Your task to perform on an android device: Go to eBay Image 0: 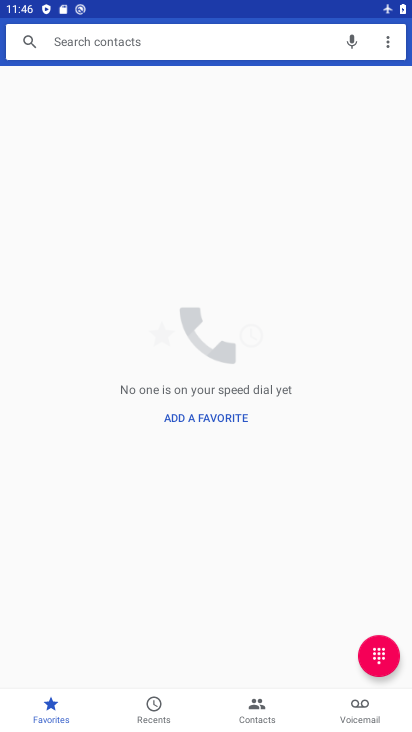
Step 0: press home button
Your task to perform on an android device: Go to eBay Image 1: 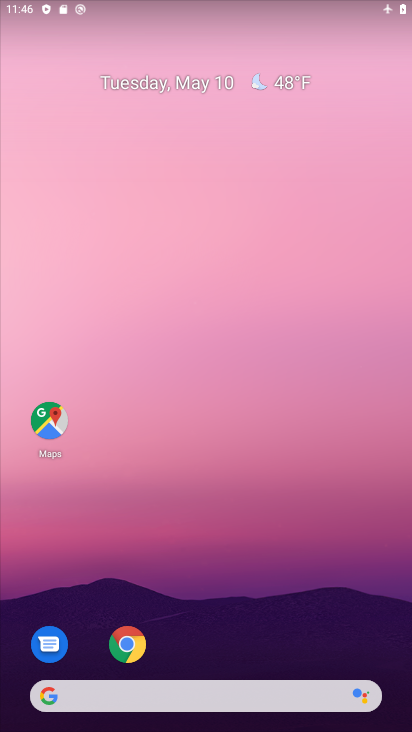
Step 1: click (128, 645)
Your task to perform on an android device: Go to eBay Image 2: 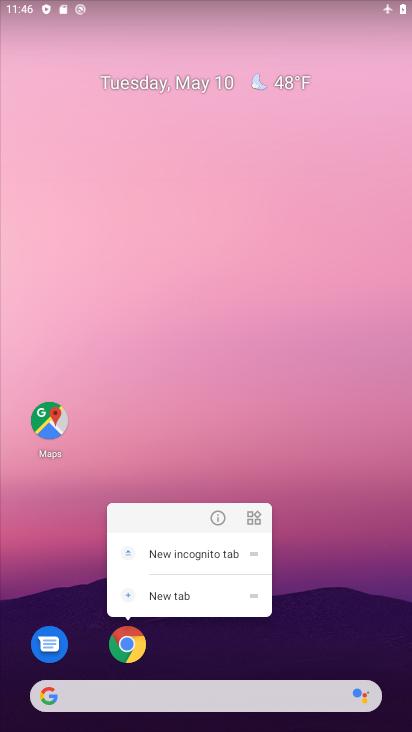
Step 2: click (136, 643)
Your task to perform on an android device: Go to eBay Image 3: 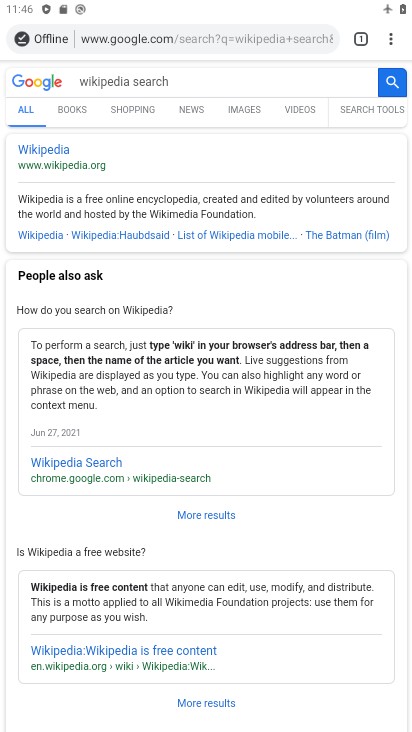
Step 3: click (225, 26)
Your task to perform on an android device: Go to eBay Image 4: 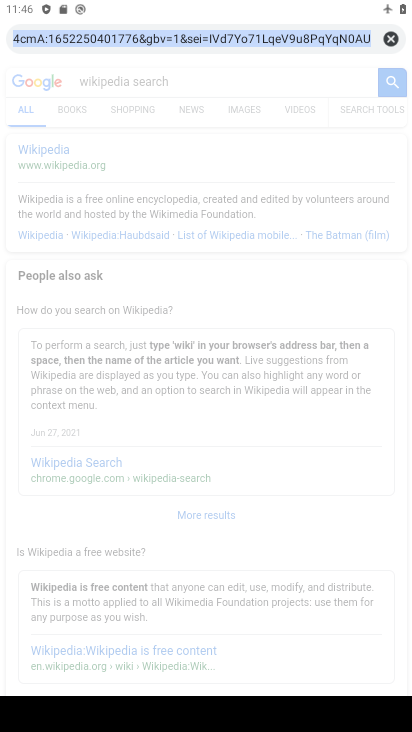
Step 4: type "eBay"
Your task to perform on an android device: Go to eBay Image 5: 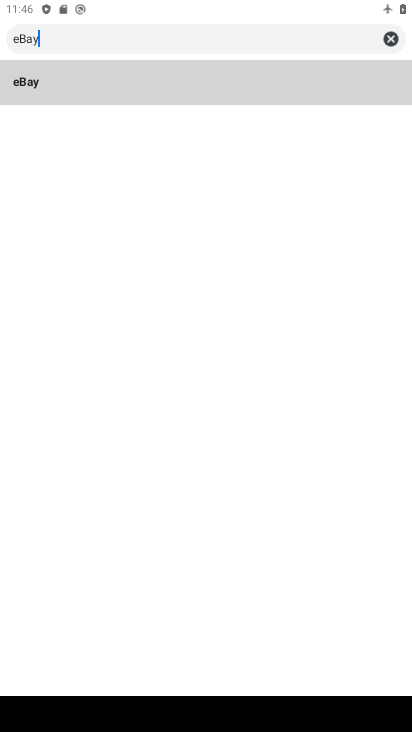
Step 5: click (105, 82)
Your task to perform on an android device: Go to eBay Image 6: 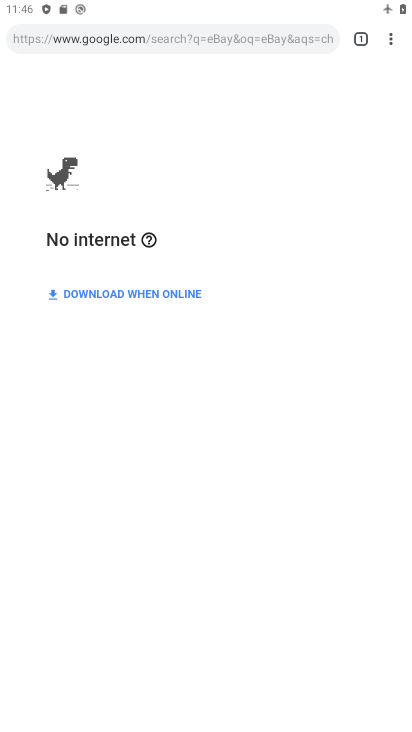
Step 6: task complete